Your task to perform on an android device: turn off priority inbox in the gmail app Image 0: 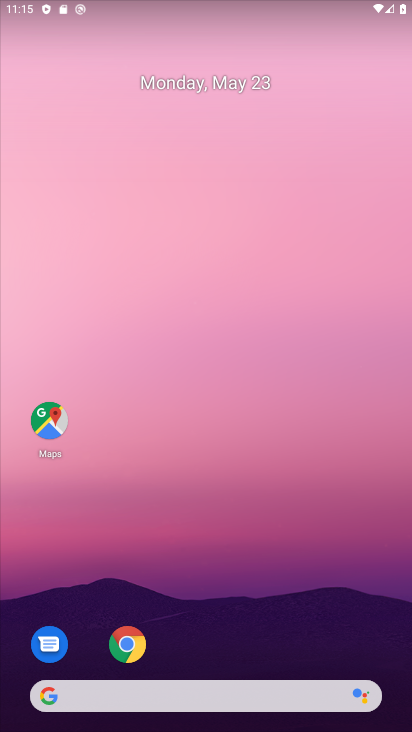
Step 0: drag from (328, 594) to (341, 47)
Your task to perform on an android device: turn off priority inbox in the gmail app Image 1: 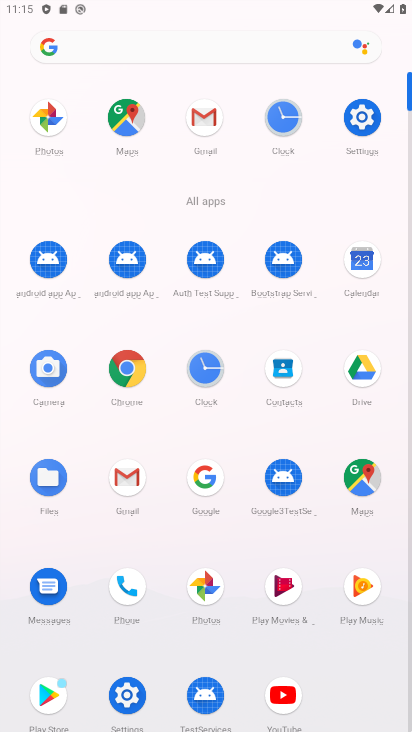
Step 1: click (186, 133)
Your task to perform on an android device: turn off priority inbox in the gmail app Image 2: 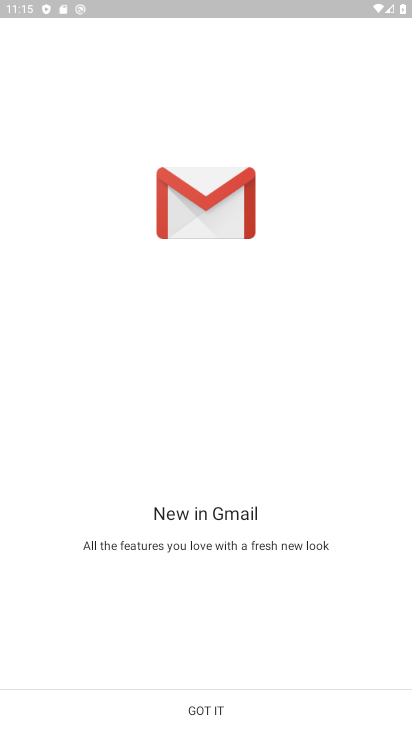
Step 2: click (205, 707)
Your task to perform on an android device: turn off priority inbox in the gmail app Image 3: 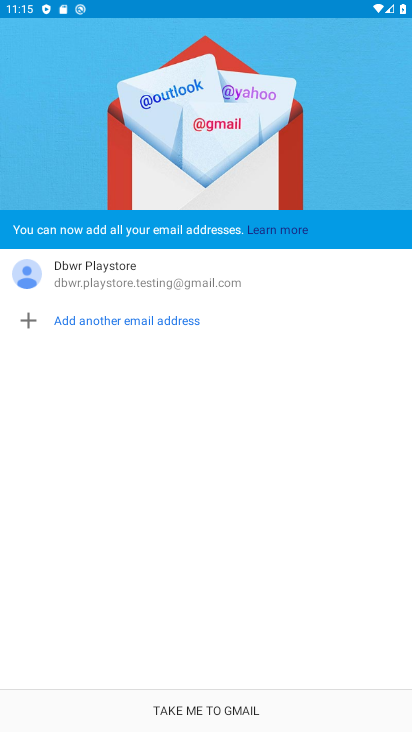
Step 3: click (218, 698)
Your task to perform on an android device: turn off priority inbox in the gmail app Image 4: 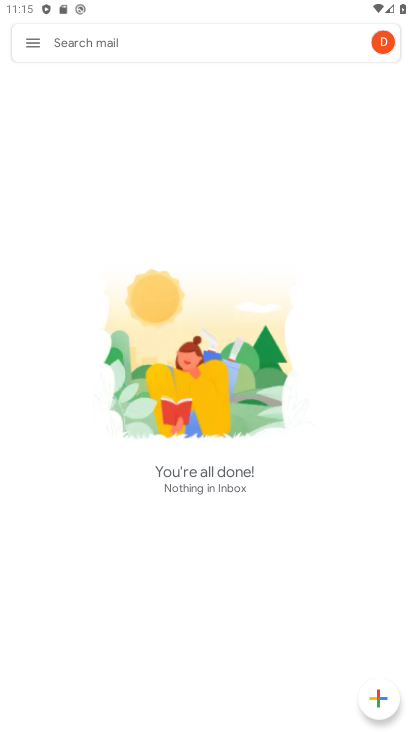
Step 4: click (25, 47)
Your task to perform on an android device: turn off priority inbox in the gmail app Image 5: 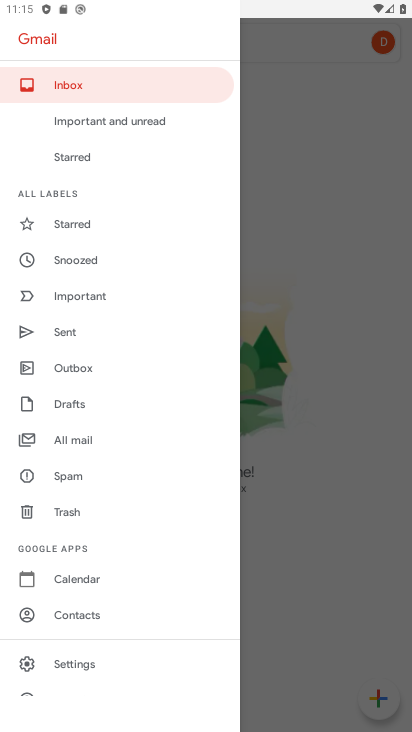
Step 5: click (87, 663)
Your task to perform on an android device: turn off priority inbox in the gmail app Image 6: 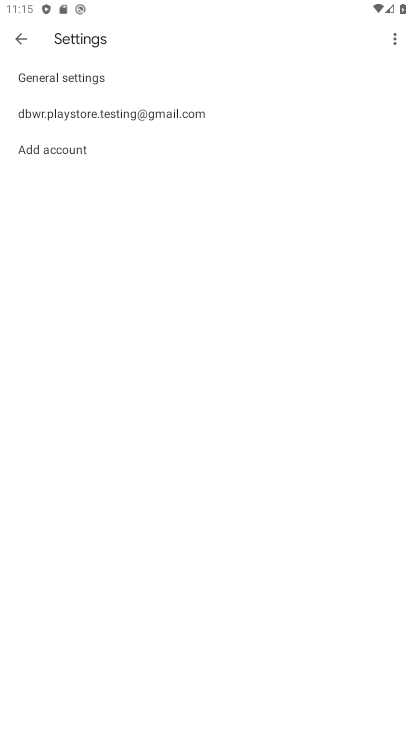
Step 6: click (154, 110)
Your task to perform on an android device: turn off priority inbox in the gmail app Image 7: 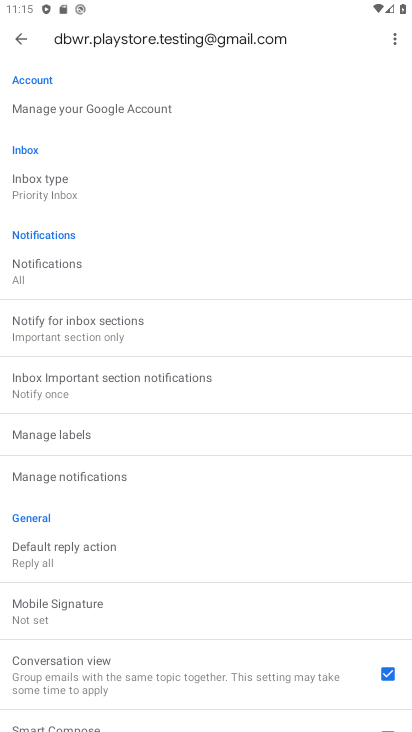
Step 7: click (111, 193)
Your task to perform on an android device: turn off priority inbox in the gmail app Image 8: 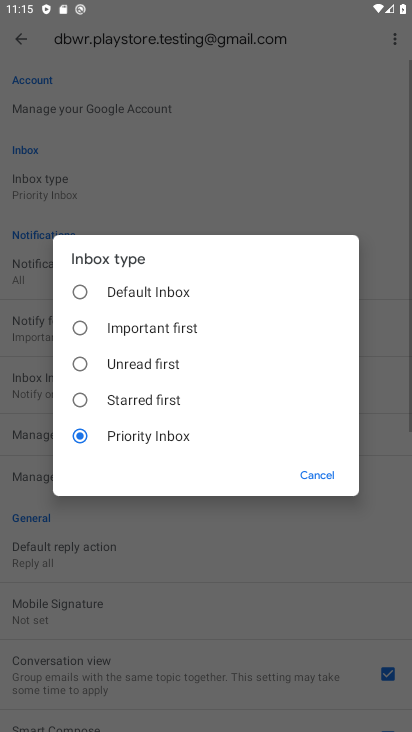
Step 8: click (161, 296)
Your task to perform on an android device: turn off priority inbox in the gmail app Image 9: 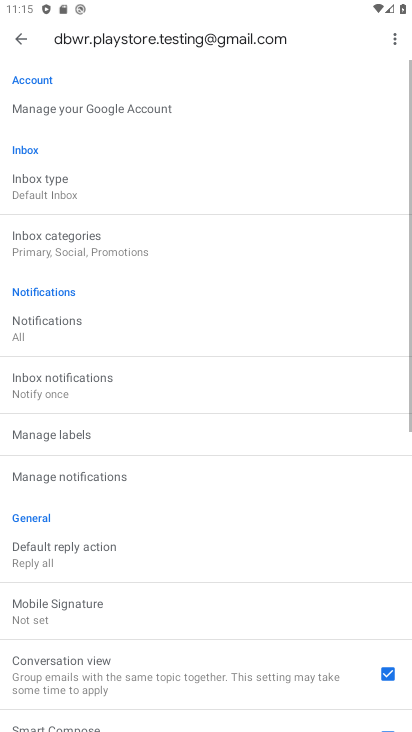
Step 9: task complete